Your task to perform on an android device: Open wifi settings Image 0: 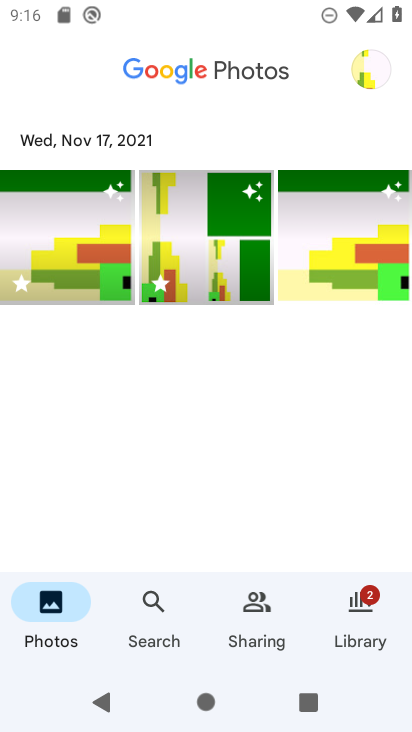
Step 0: press home button
Your task to perform on an android device: Open wifi settings Image 1: 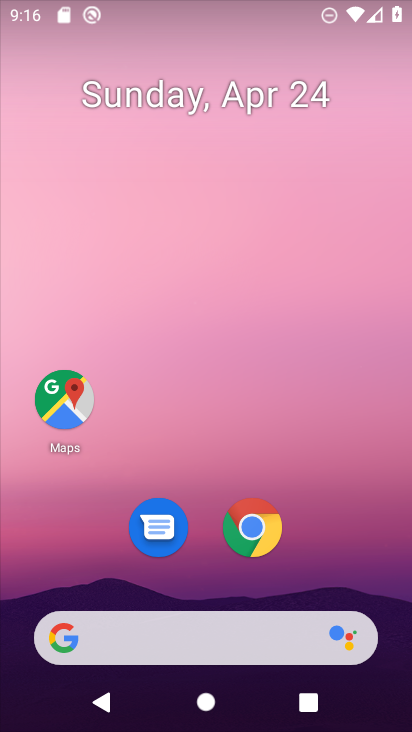
Step 1: drag from (396, 616) to (251, 181)
Your task to perform on an android device: Open wifi settings Image 2: 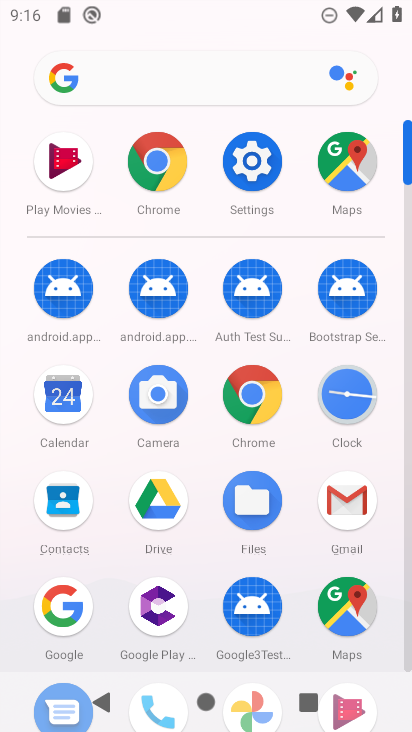
Step 2: click (241, 172)
Your task to perform on an android device: Open wifi settings Image 3: 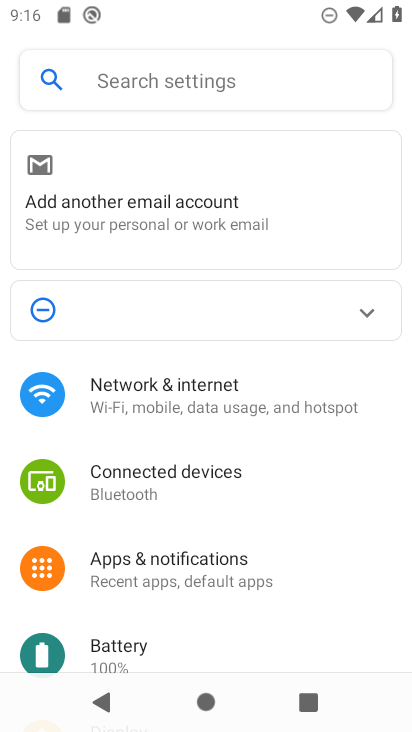
Step 3: click (224, 409)
Your task to perform on an android device: Open wifi settings Image 4: 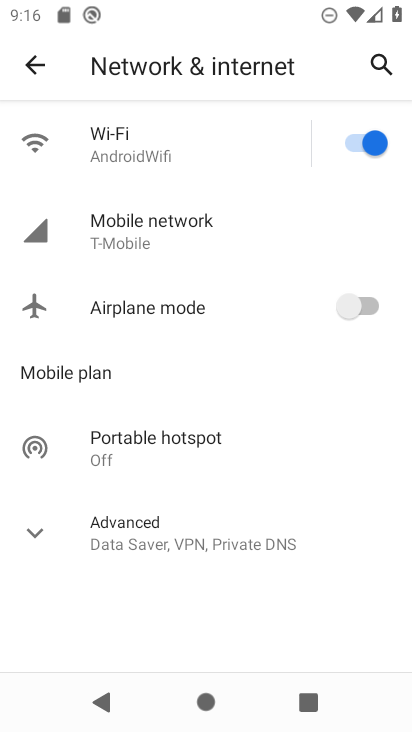
Step 4: click (106, 162)
Your task to perform on an android device: Open wifi settings Image 5: 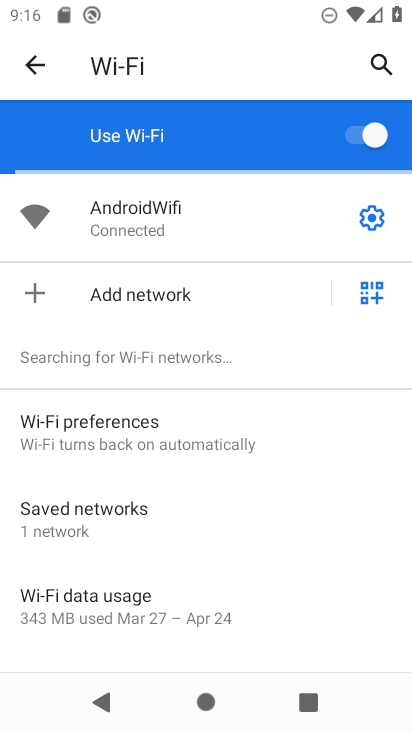
Step 5: task complete